Your task to perform on an android device: Go to network settings Image 0: 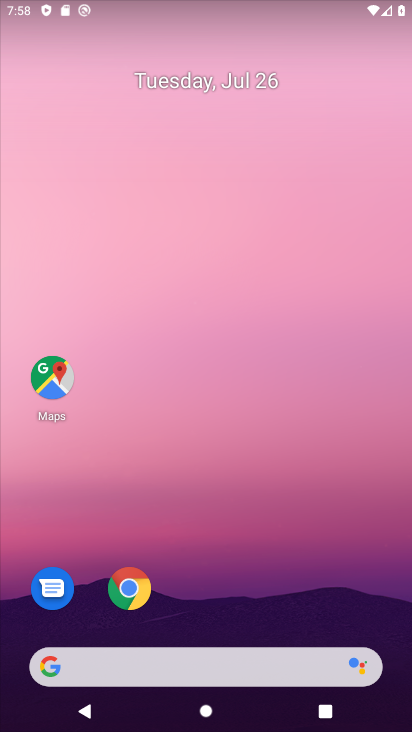
Step 0: drag from (262, 597) to (192, 58)
Your task to perform on an android device: Go to network settings Image 1: 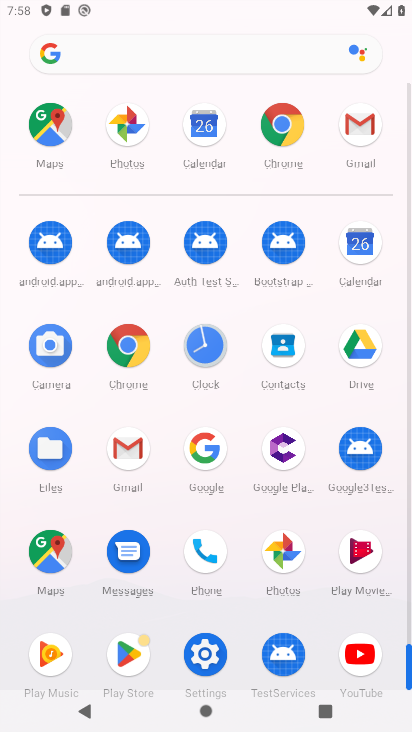
Step 1: click (199, 644)
Your task to perform on an android device: Go to network settings Image 2: 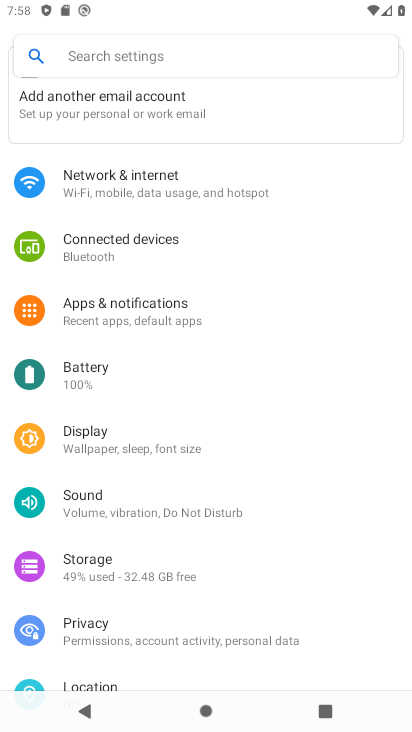
Step 2: click (180, 198)
Your task to perform on an android device: Go to network settings Image 3: 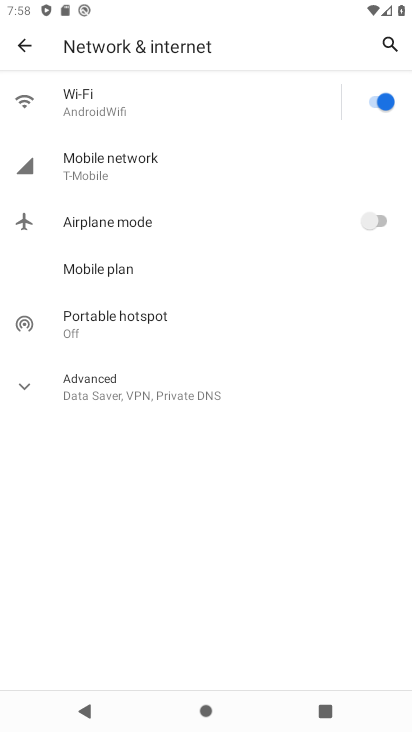
Step 3: task complete